Your task to perform on an android device: Go to Google Image 0: 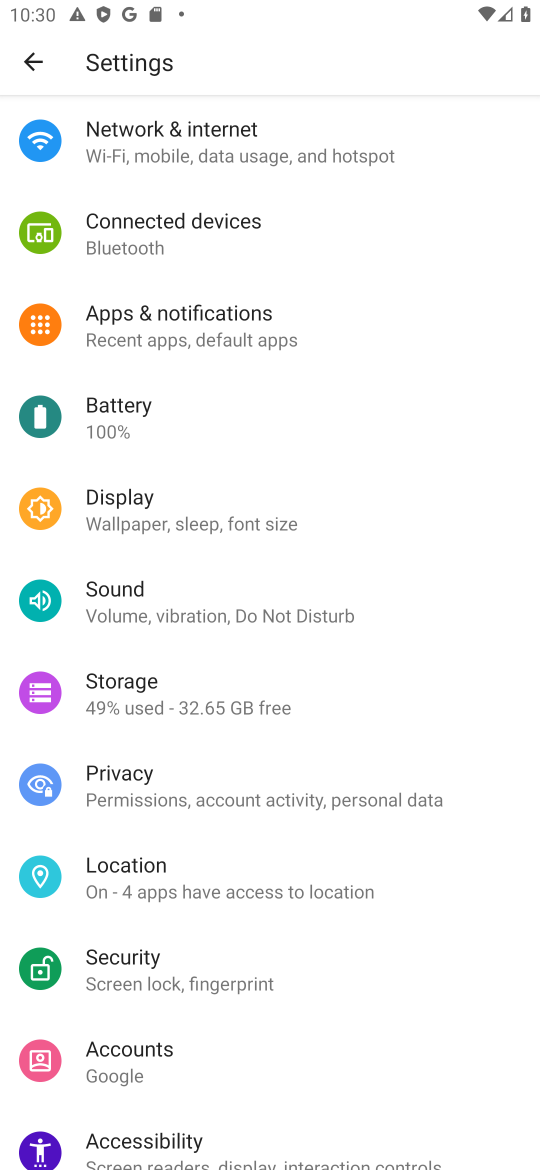
Step 0: press home button
Your task to perform on an android device: Go to Google Image 1: 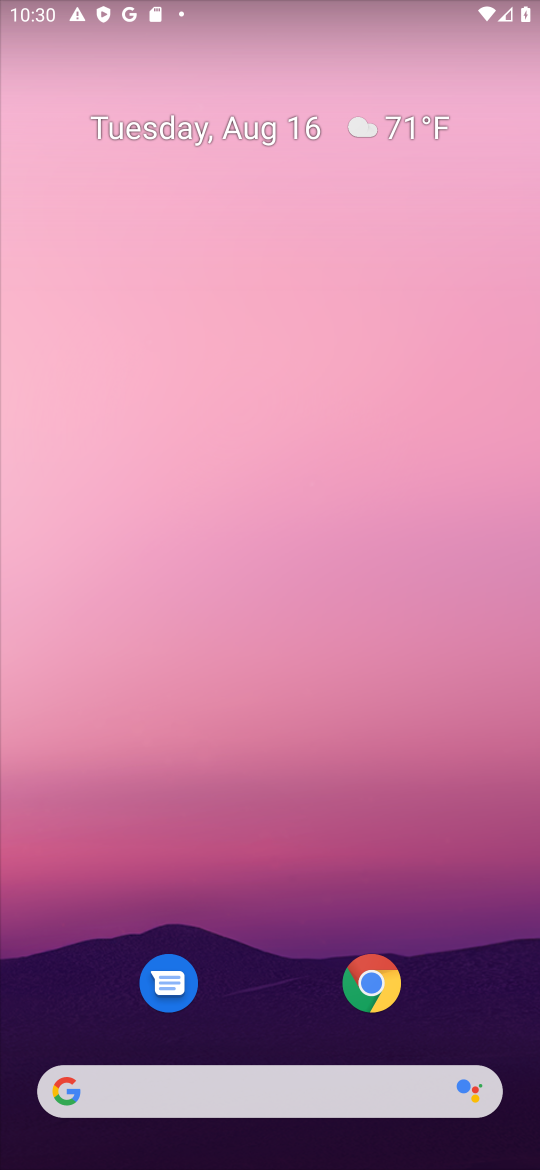
Step 1: drag from (257, 1099) to (238, 342)
Your task to perform on an android device: Go to Google Image 2: 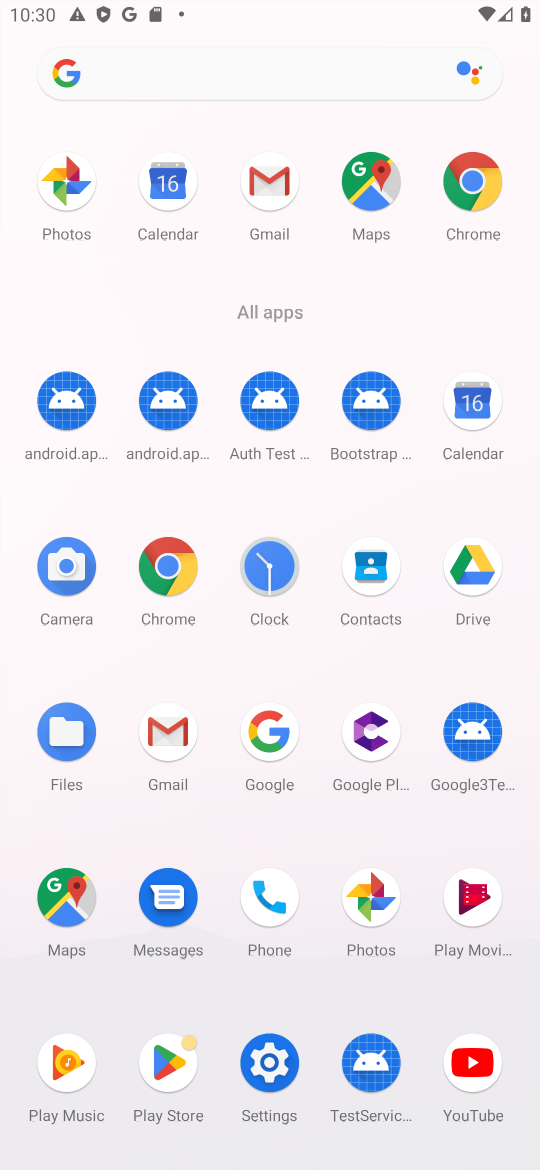
Step 2: click (263, 738)
Your task to perform on an android device: Go to Google Image 3: 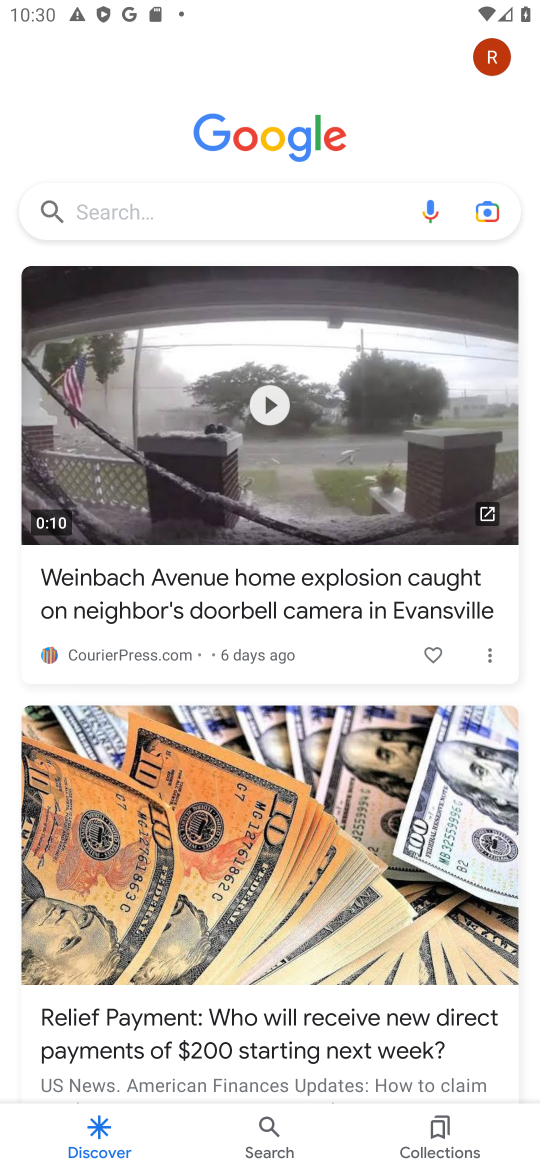
Step 3: task complete